Your task to perform on an android device: find snoozed emails in the gmail app Image 0: 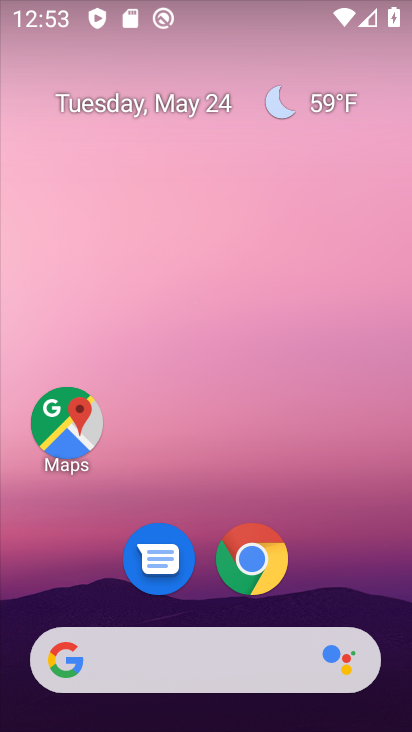
Step 0: drag from (373, 616) to (319, 83)
Your task to perform on an android device: find snoozed emails in the gmail app Image 1: 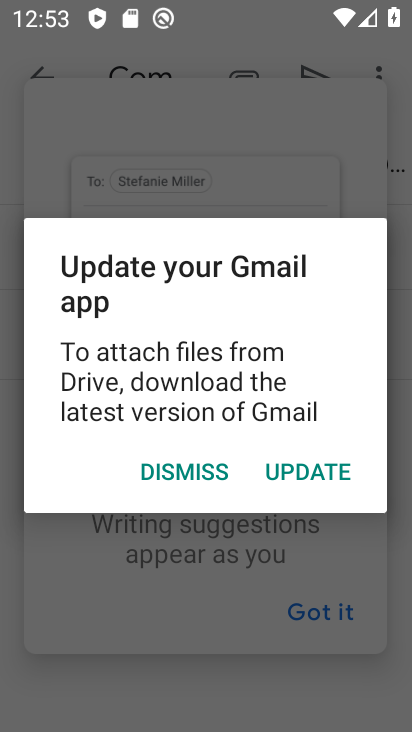
Step 1: press home button
Your task to perform on an android device: find snoozed emails in the gmail app Image 2: 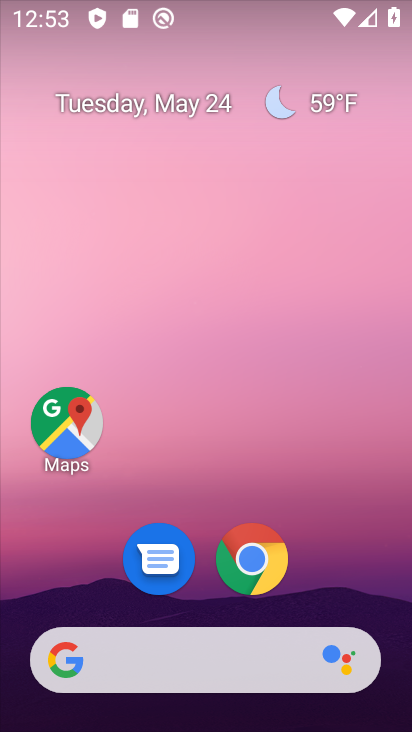
Step 2: drag from (396, 656) to (345, 54)
Your task to perform on an android device: find snoozed emails in the gmail app Image 3: 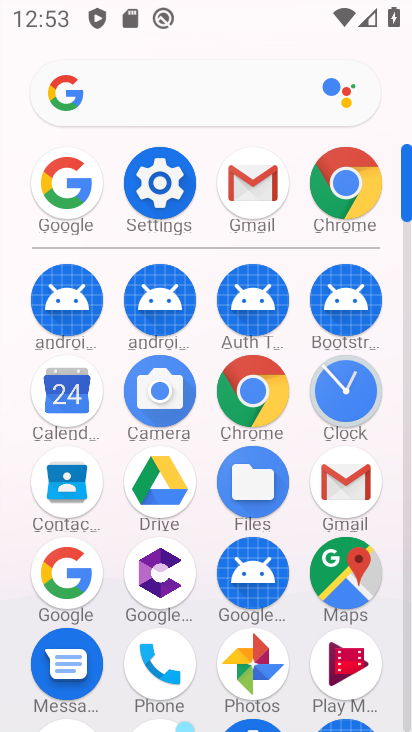
Step 3: click (351, 472)
Your task to perform on an android device: find snoozed emails in the gmail app Image 4: 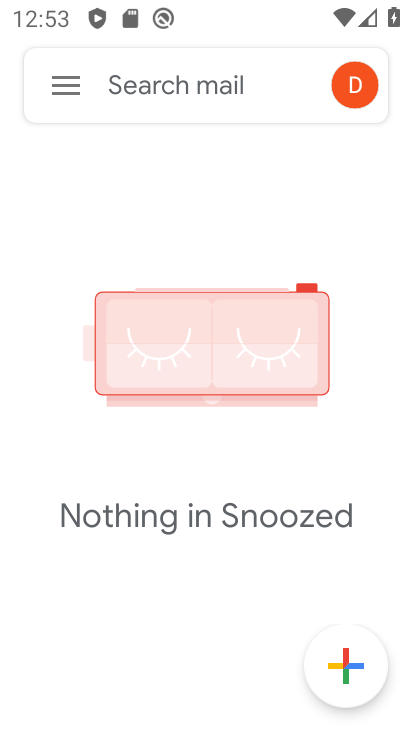
Step 4: click (58, 89)
Your task to perform on an android device: find snoozed emails in the gmail app Image 5: 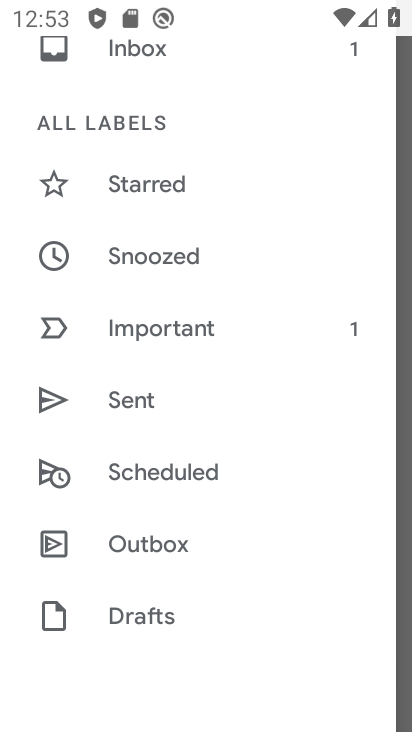
Step 5: click (212, 273)
Your task to perform on an android device: find snoozed emails in the gmail app Image 6: 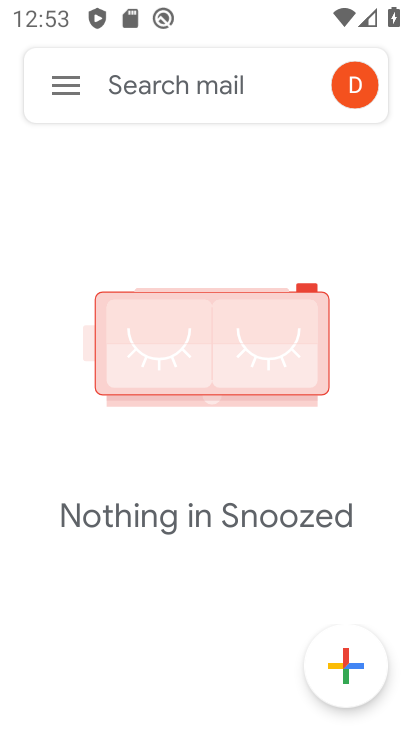
Step 6: task complete